Your task to perform on an android device: turn pop-ups on in chrome Image 0: 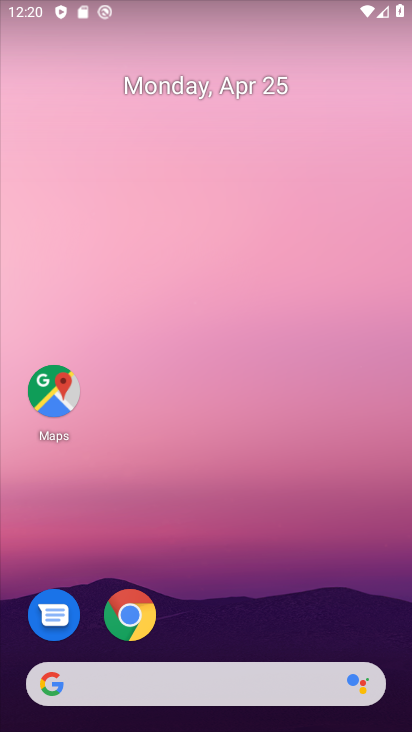
Step 0: drag from (207, 635) to (207, 10)
Your task to perform on an android device: turn pop-ups on in chrome Image 1: 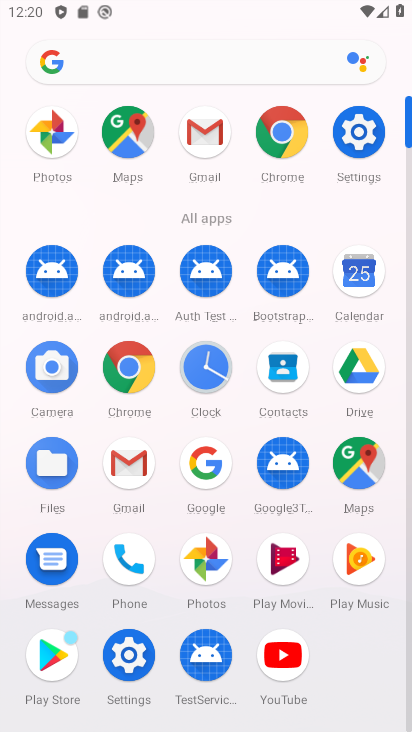
Step 1: click (290, 129)
Your task to perform on an android device: turn pop-ups on in chrome Image 2: 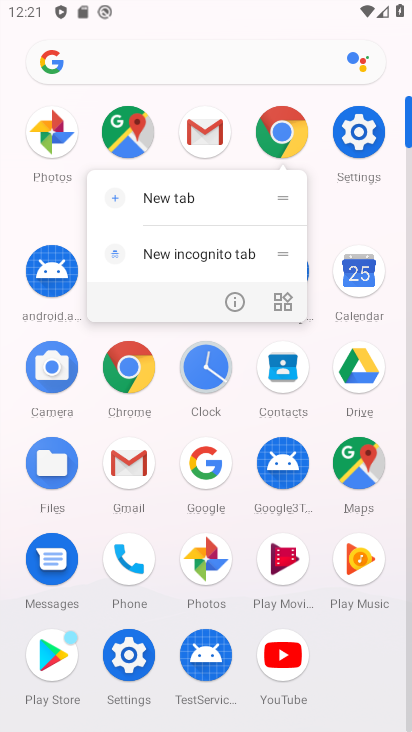
Step 2: click (289, 141)
Your task to perform on an android device: turn pop-ups on in chrome Image 3: 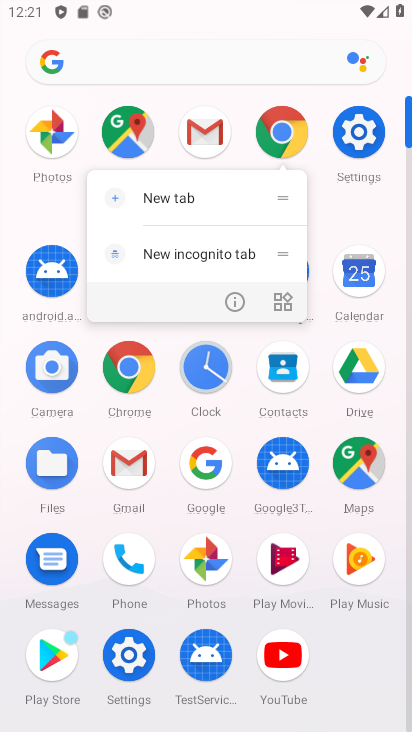
Step 3: click (280, 128)
Your task to perform on an android device: turn pop-ups on in chrome Image 4: 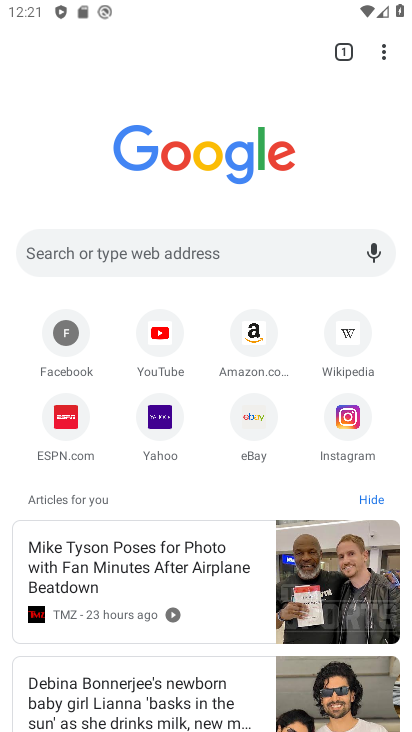
Step 4: click (383, 41)
Your task to perform on an android device: turn pop-ups on in chrome Image 5: 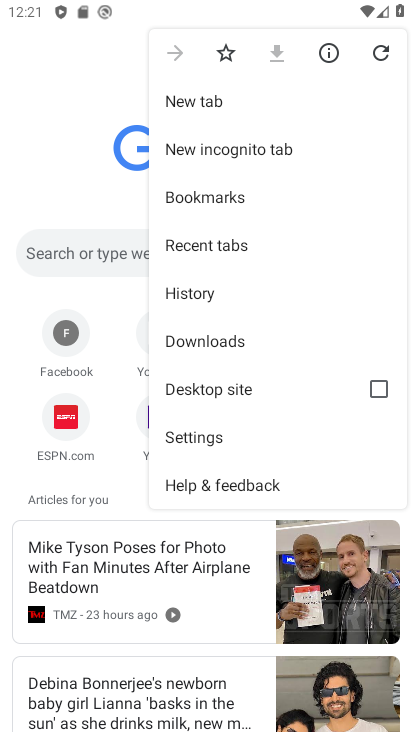
Step 5: click (200, 427)
Your task to perform on an android device: turn pop-ups on in chrome Image 6: 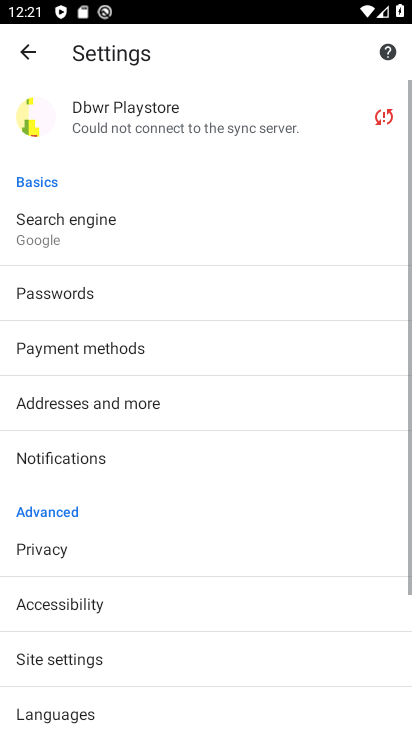
Step 6: drag from (191, 504) to (142, 74)
Your task to perform on an android device: turn pop-ups on in chrome Image 7: 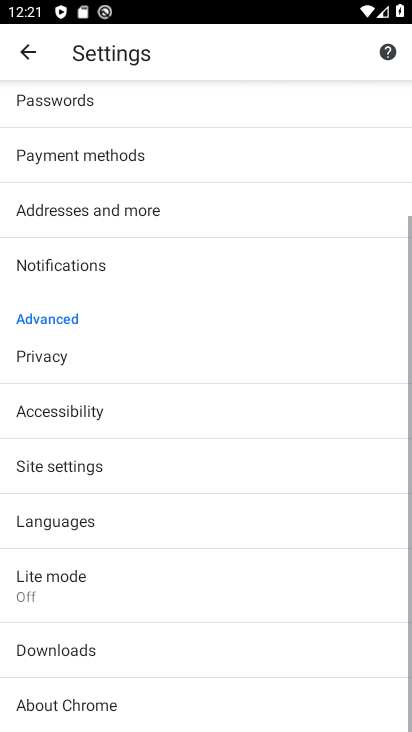
Step 7: click (58, 468)
Your task to perform on an android device: turn pop-ups on in chrome Image 8: 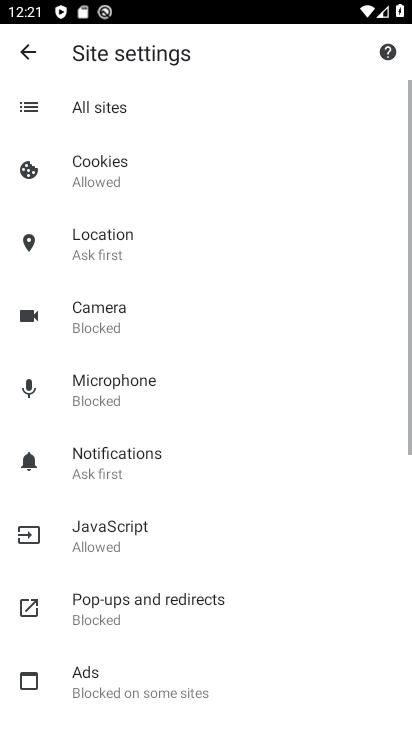
Step 8: drag from (152, 553) to (142, 348)
Your task to perform on an android device: turn pop-ups on in chrome Image 9: 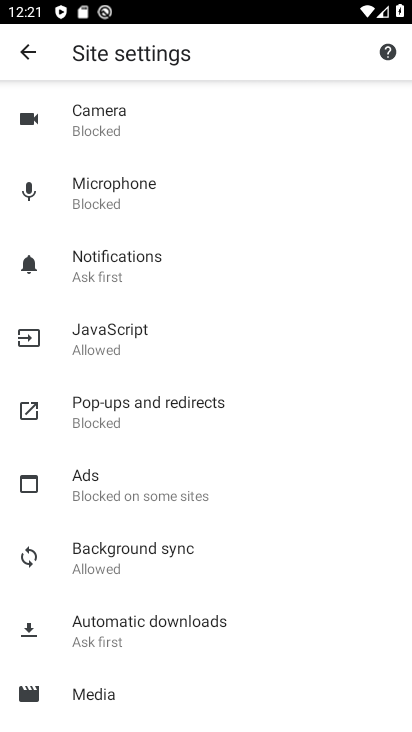
Step 9: click (133, 419)
Your task to perform on an android device: turn pop-ups on in chrome Image 10: 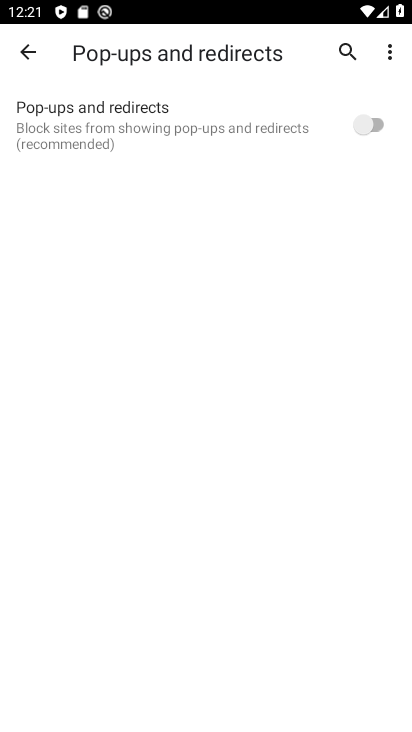
Step 10: click (364, 127)
Your task to perform on an android device: turn pop-ups on in chrome Image 11: 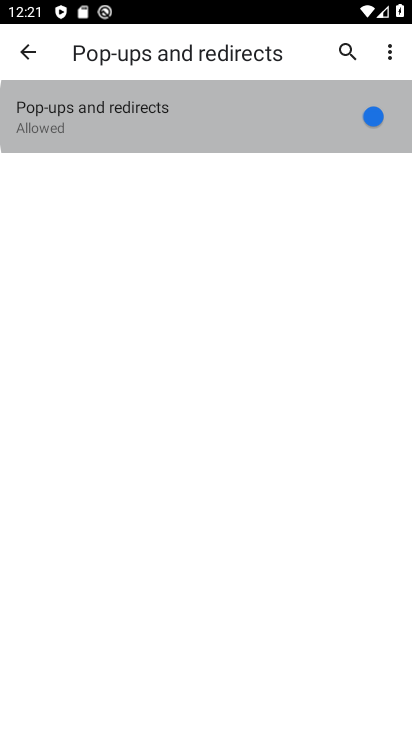
Step 11: task complete